Your task to perform on an android device: Search for the best selling jewelry on Etsy. Image 0: 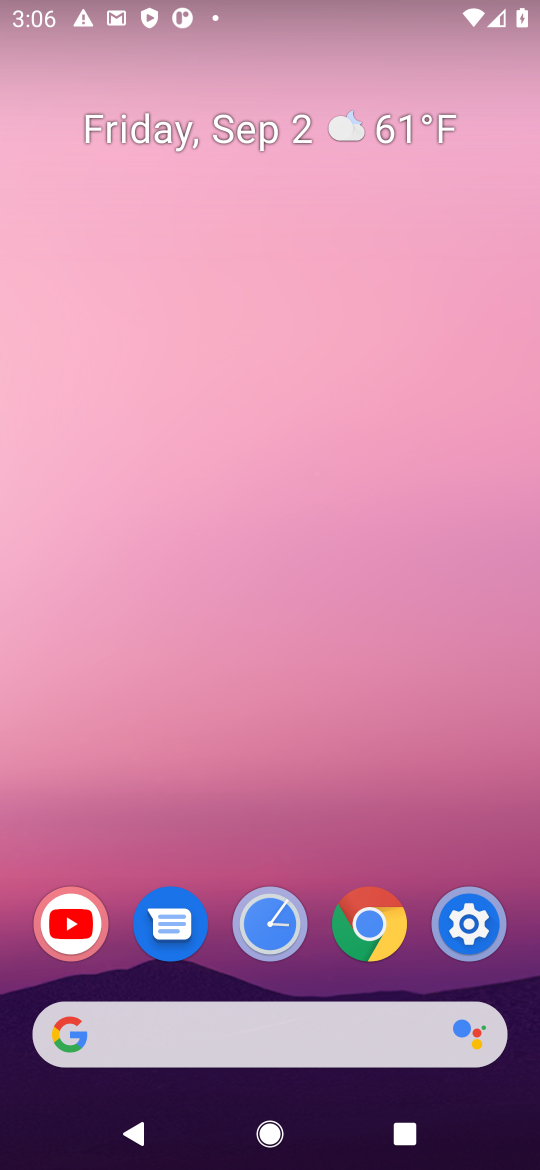
Step 0: press home button
Your task to perform on an android device: Search for the best selling jewelry on Etsy. Image 1: 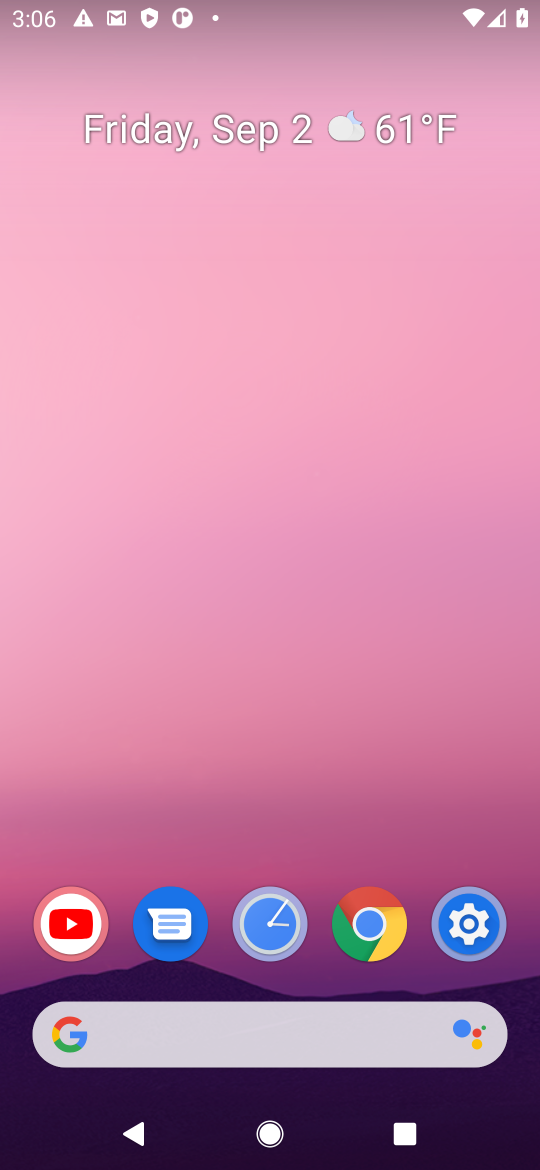
Step 1: click (364, 1043)
Your task to perform on an android device: Search for the best selling jewelry on Etsy. Image 2: 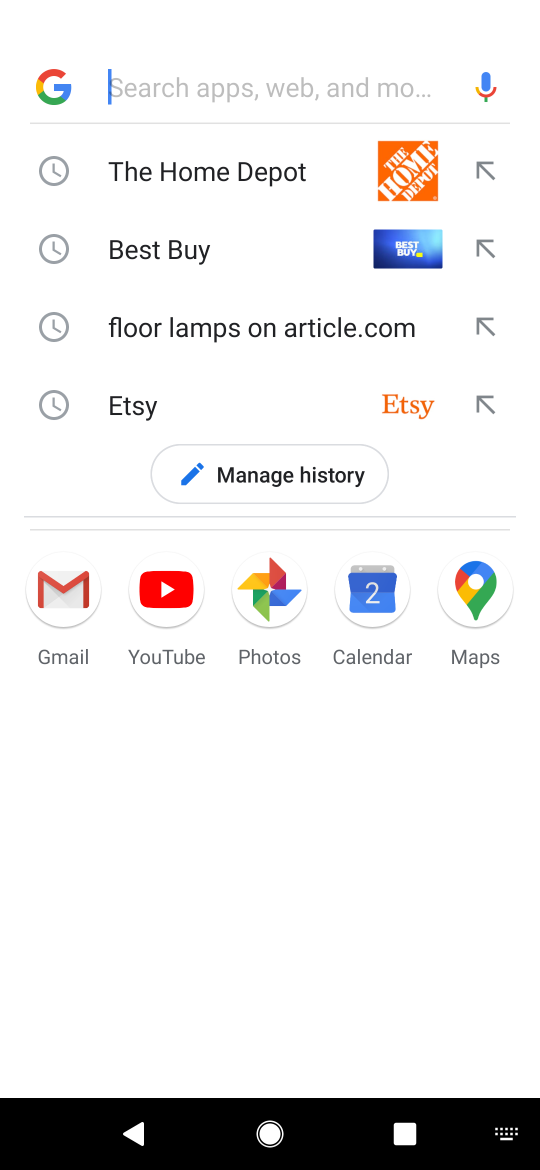
Step 2: press enter
Your task to perform on an android device: Search for the best selling jewelry on Etsy. Image 3: 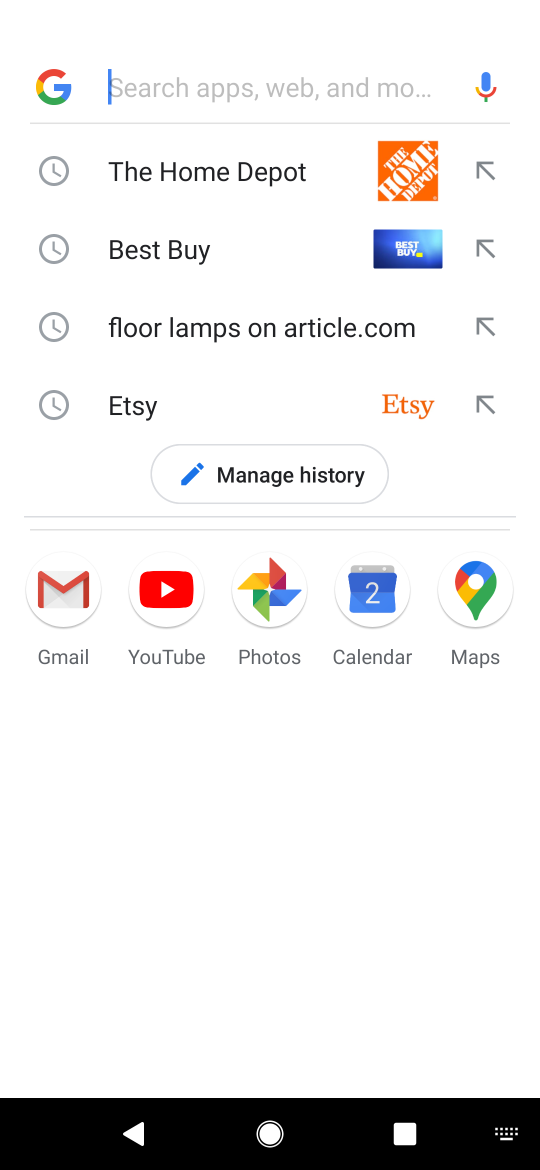
Step 3: type "etsy"
Your task to perform on an android device: Search for the best selling jewelry on Etsy. Image 4: 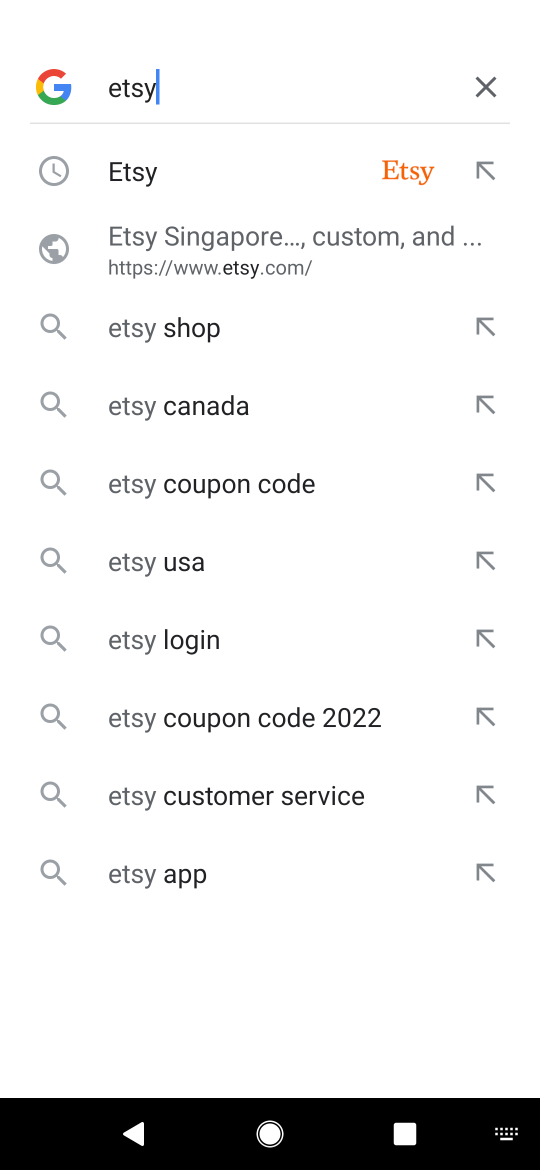
Step 4: click (229, 169)
Your task to perform on an android device: Search for the best selling jewelry on Etsy. Image 5: 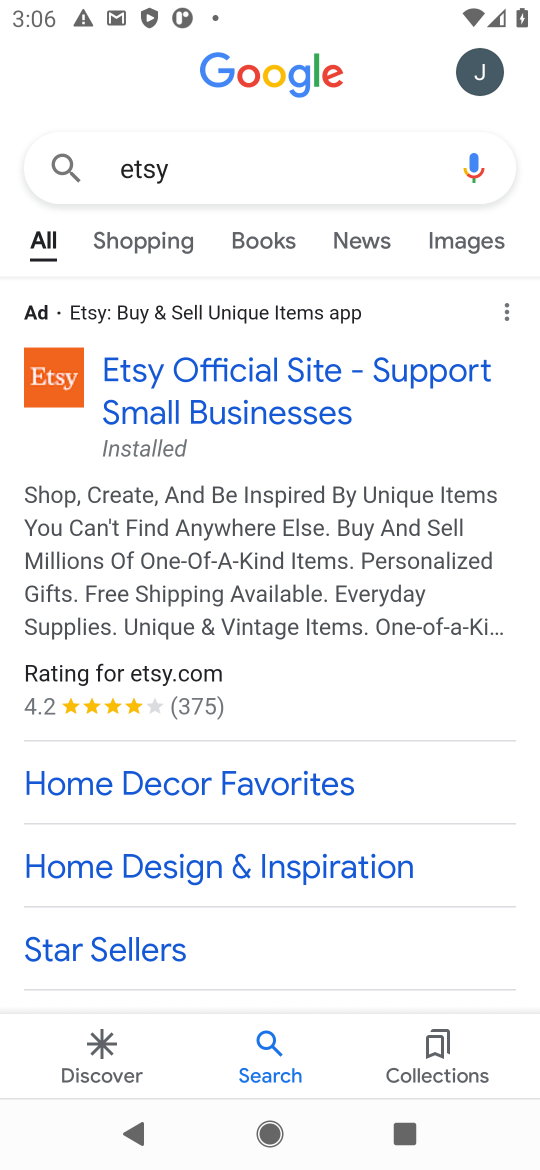
Step 5: click (283, 389)
Your task to perform on an android device: Search for the best selling jewelry on Etsy. Image 6: 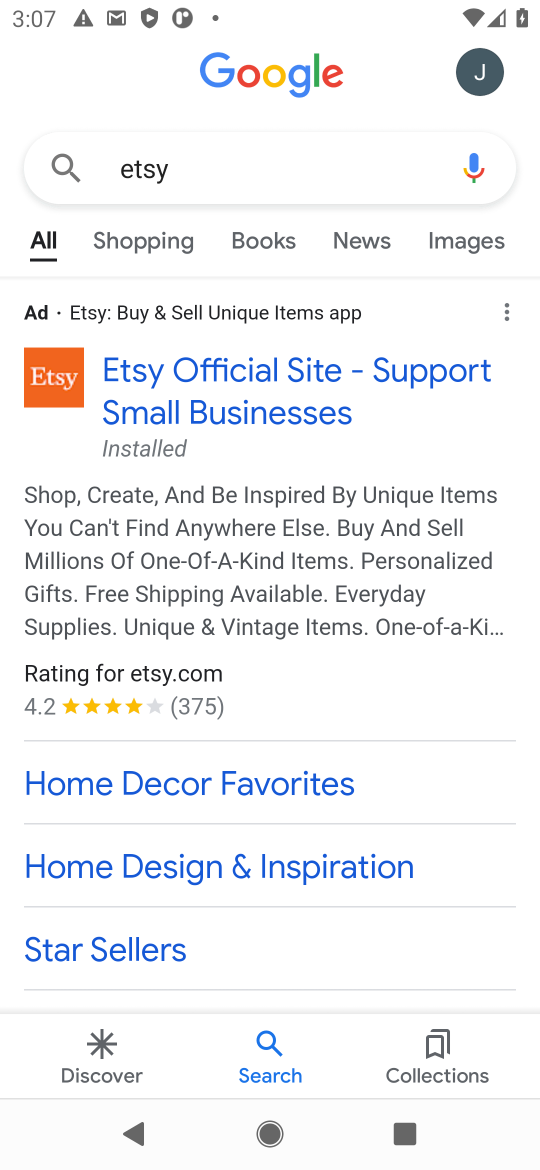
Step 6: click (263, 393)
Your task to perform on an android device: Search for the best selling jewelry on Etsy. Image 7: 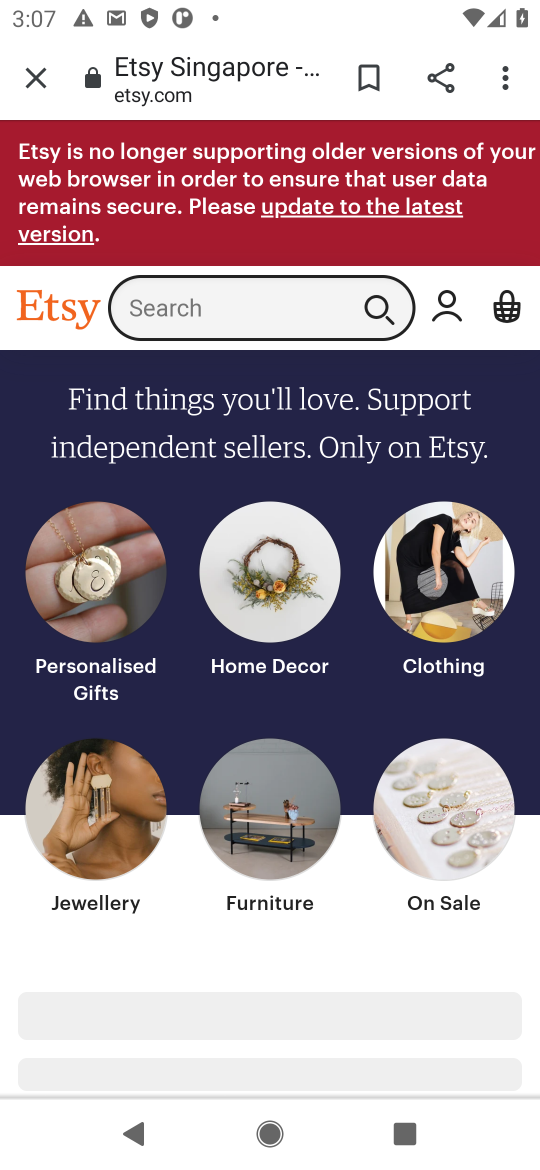
Step 7: click (243, 312)
Your task to perform on an android device: Search for the best selling jewelry on Etsy. Image 8: 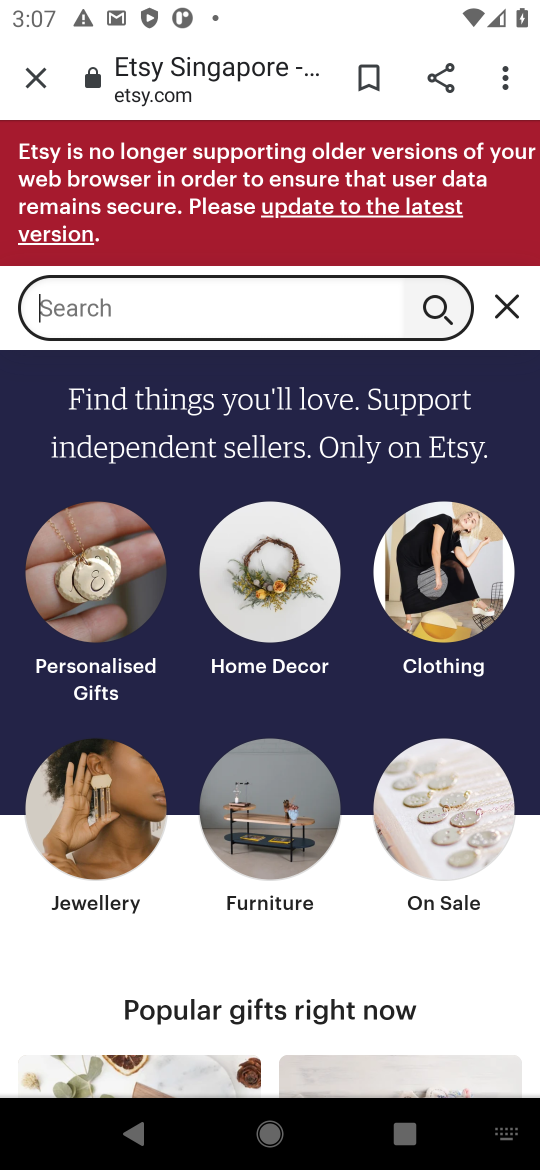
Step 8: type "best selling jewelry"
Your task to perform on an android device: Search for the best selling jewelry on Etsy. Image 9: 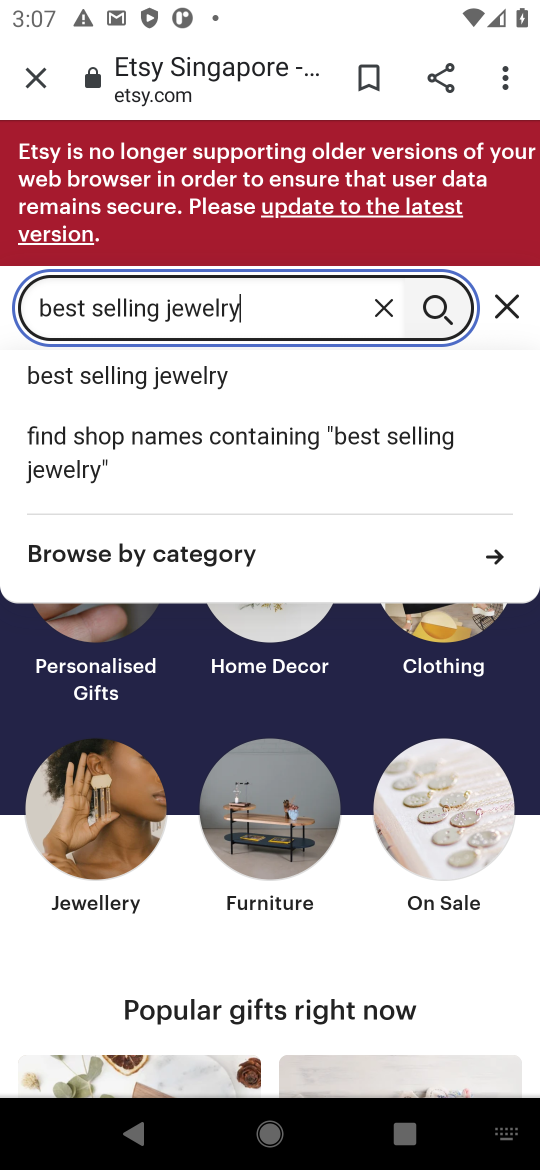
Step 9: click (225, 380)
Your task to perform on an android device: Search for the best selling jewelry on Etsy. Image 10: 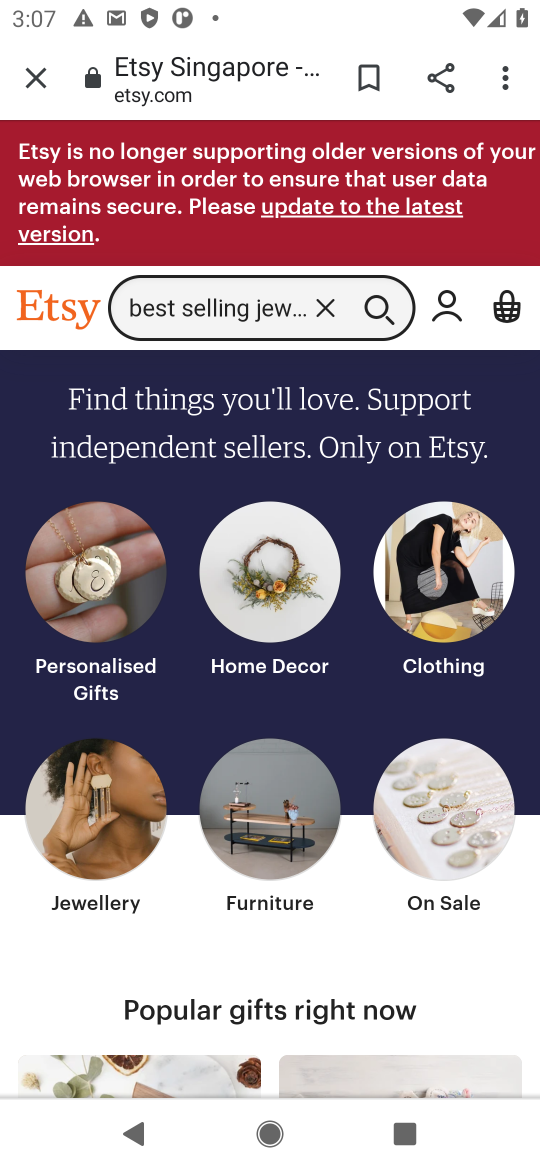
Step 10: click (365, 307)
Your task to perform on an android device: Search for the best selling jewelry on Etsy. Image 11: 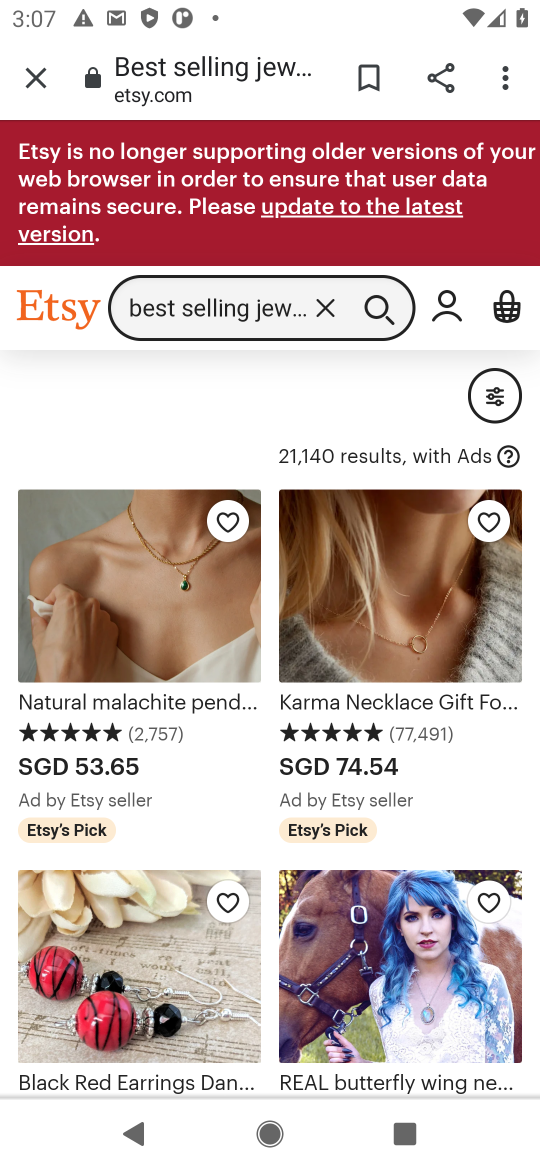
Step 11: task complete